Your task to perform on an android device: Go to Yahoo.com Image 0: 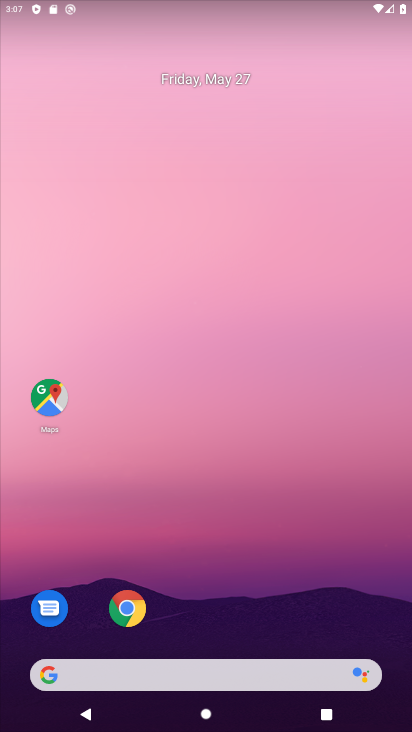
Step 0: click (121, 614)
Your task to perform on an android device: Go to Yahoo.com Image 1: 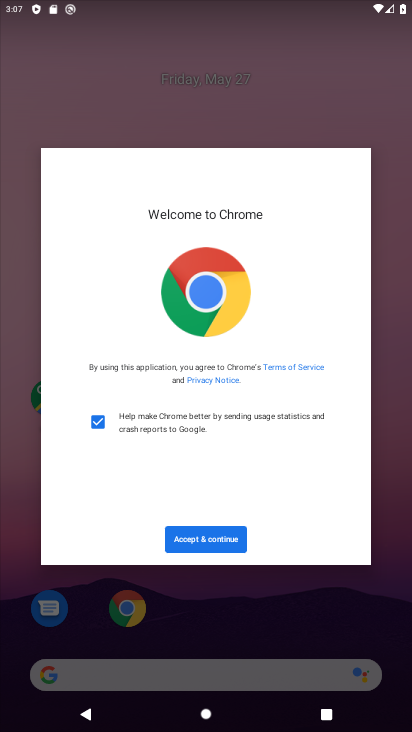
Step 1: click (217, 543)
Your task to perform on an android device: Go to Yahoo.com Image 2: 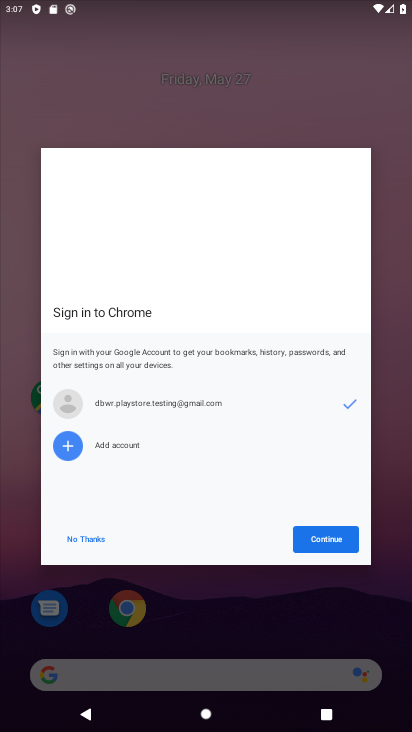
Step 2: click (315, 535)
Your task to perform on an android device: Go to Yahoo.com Image 3: 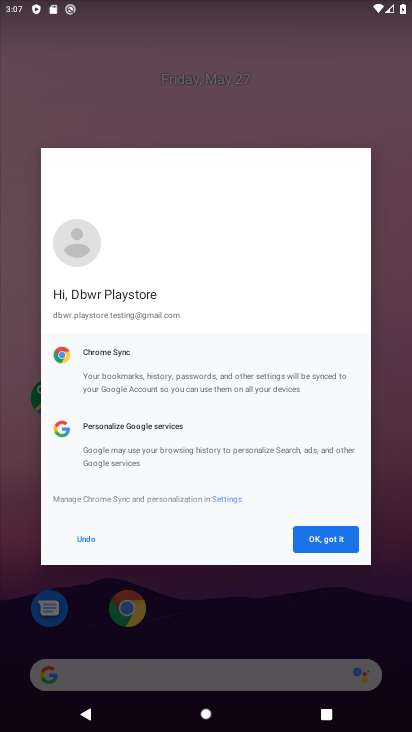
Step 3: click (315, 535)
Your task to perform on an android device: Go to Yahoo.com Image 4: 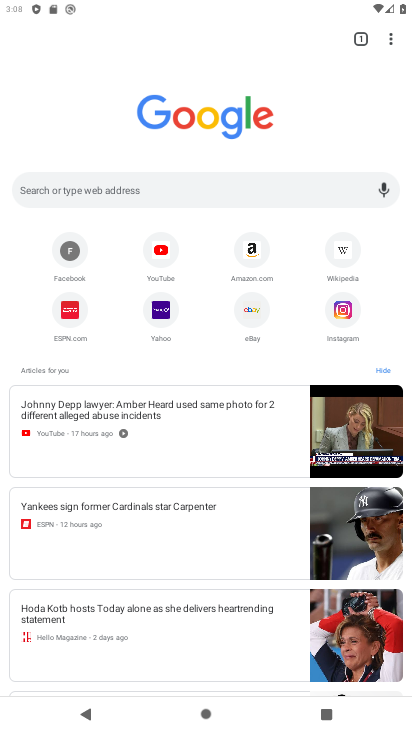
Step 4: click (170, 311)
Your task to perform on an android device: Go to Yahoo.com Image 5: 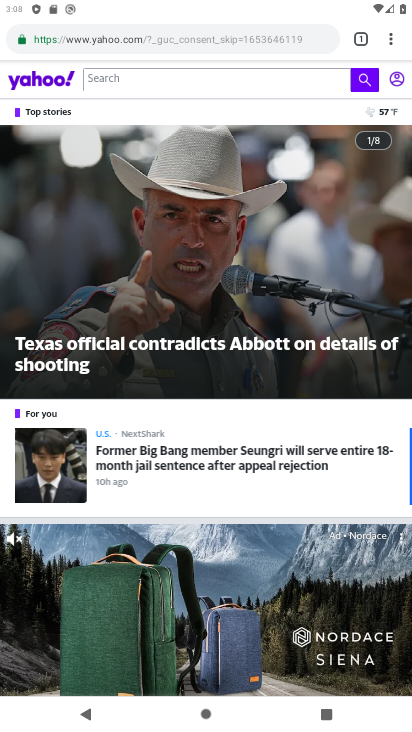
Step 5: task complete